Your task to perform on an android device: Open internet settings Image 0: 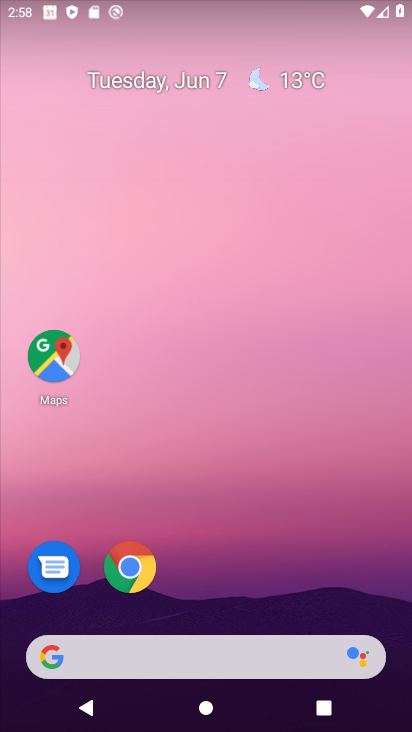
Step 0: drag from (244, 581) to (265, 34)
Your task to perform on an android device: Open internet settings Image 1: 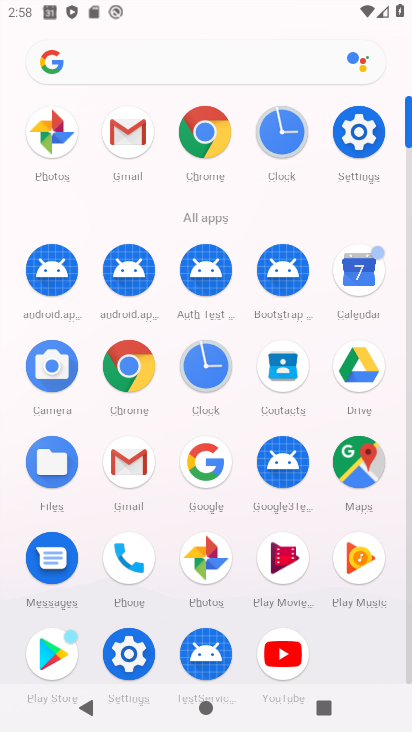
Step 1: click (357, 137)
Your task to perform on an android device: Open internet settings Image 2: 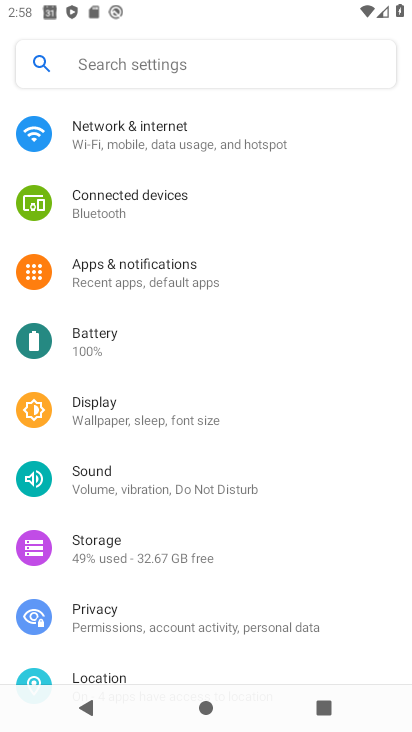
Step 2: click (140, 142)
Your task to perform on an android device: Open internet settings Image 3: 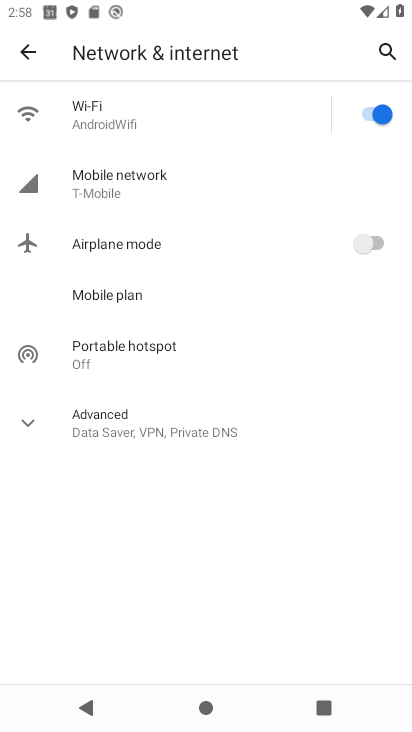
Step 3: task complete